Your task to perform on an android device: turn on the 12-hour format for clock Image 0: 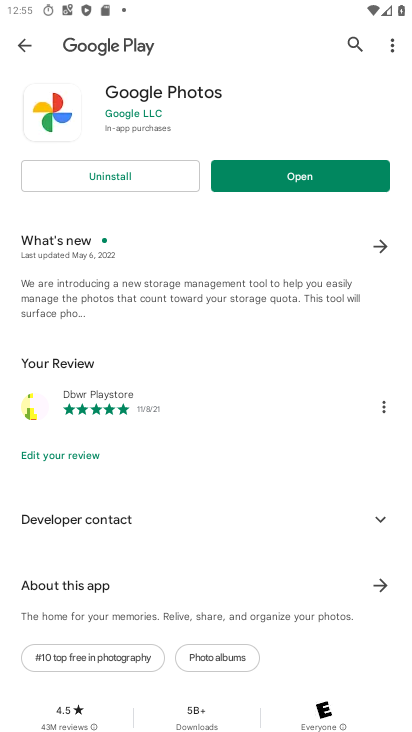
Step 0: press home button
Your task to perform on an android device: turn on the 12-hour format for clock Image 1: 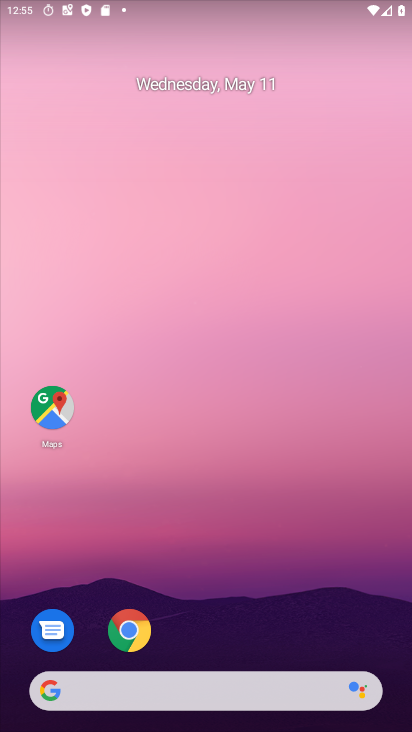
Step 1: drag from (218, 601) to (297, 83)
Your task to perform on an android device: turn on the 12-hour format for clock Image 2: 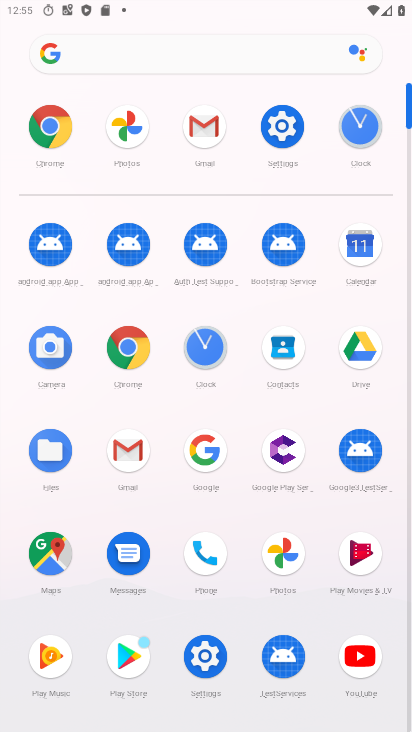
Step 2: click (366, 120)
Your task to perform on an android device: turn on the 12-hour format for clock Image 3: 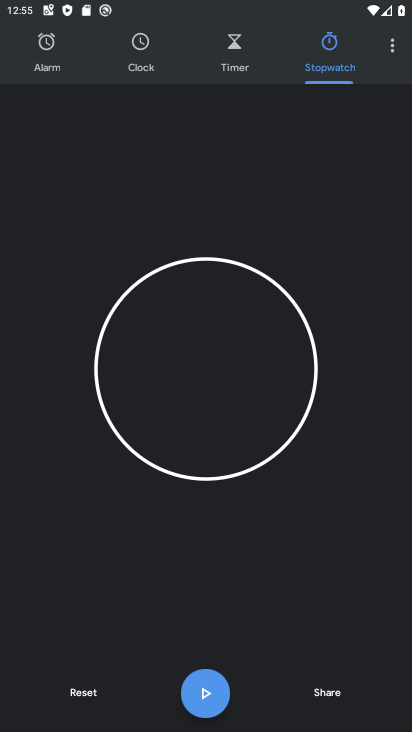
Step 3: drag from (389, 38) to (297, 92)
Your task to perform on an android device: turn on the 12-hour format for clock Image 4: 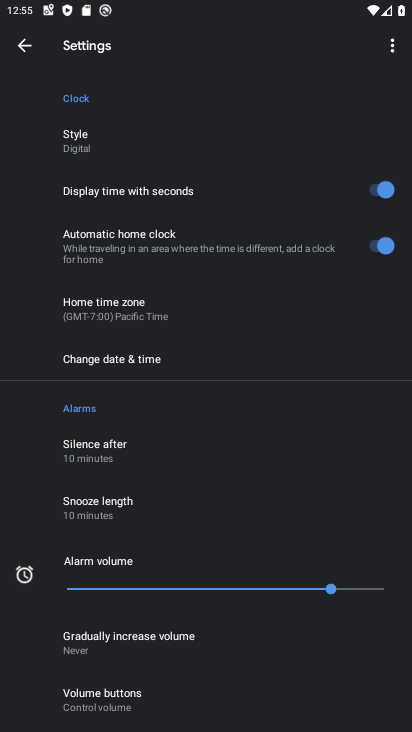
Step 4: click (156, 362)
Your task to perform on an android device: turn on the 12-hour format for clock Image 5: 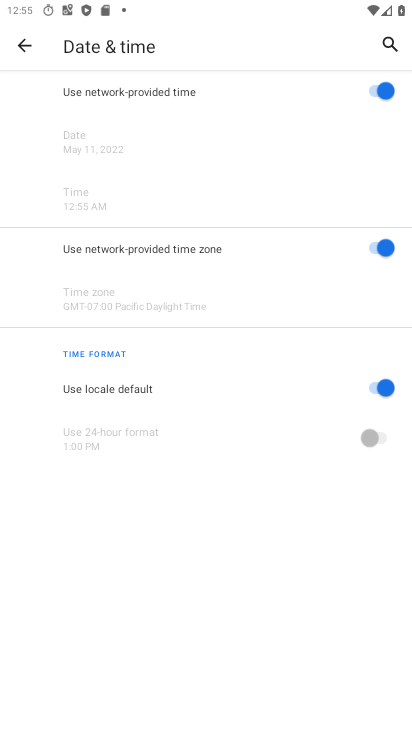
Step 5: task complete